Your task to perform on an android device: Open network settings Image 0: 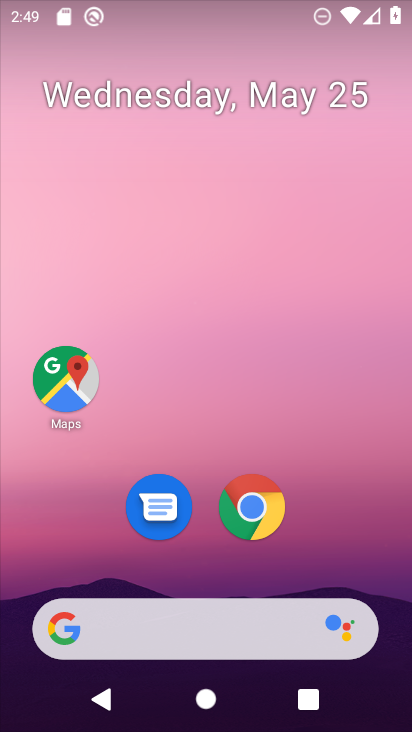
Step 0: drag from (231, 614) to (263, 126)
Your task to perform on an android device: Open network settings Image 1: 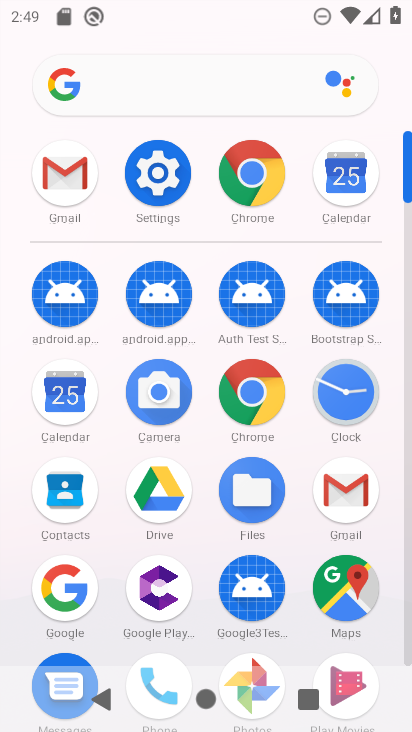
Step 1: click (163, 190)
Your task to perform on an android device: Open network settings Image 2: 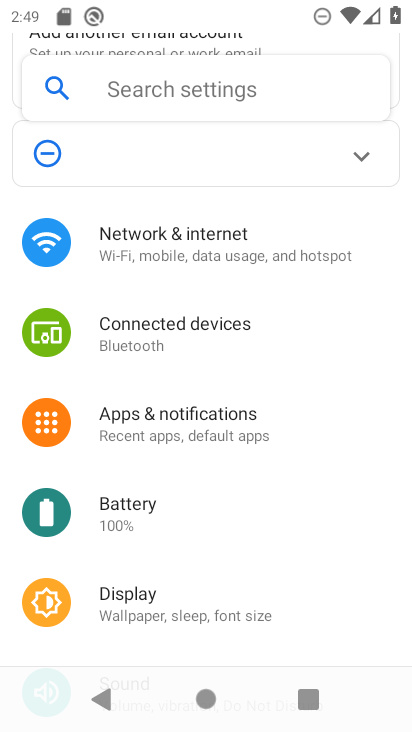
Step 2: click (187, 521)
Your task to perform on an android device: Open network settings Image 3: 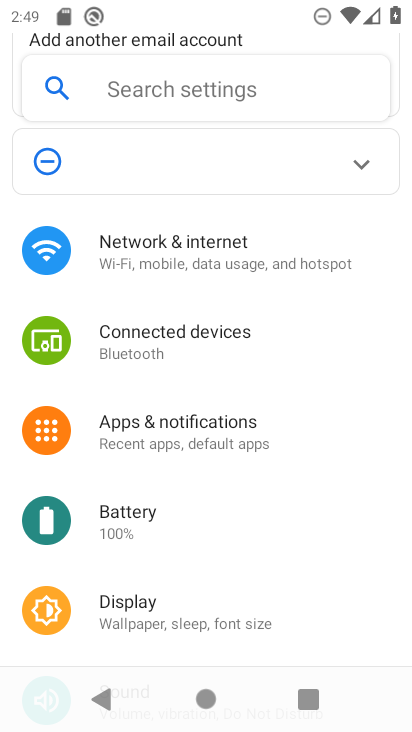
Step 3: click (248, 254)
Your task to perform on an android device: Open network settings Image 4: 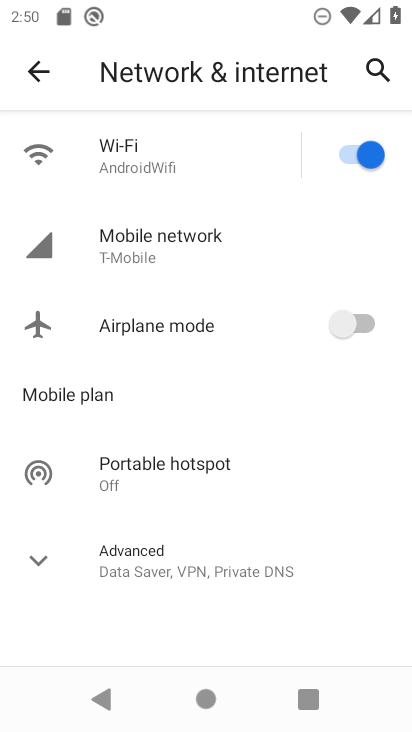
Step 4: click (223, 244)
Your task to perform on an android device: Open network settings Image 5: 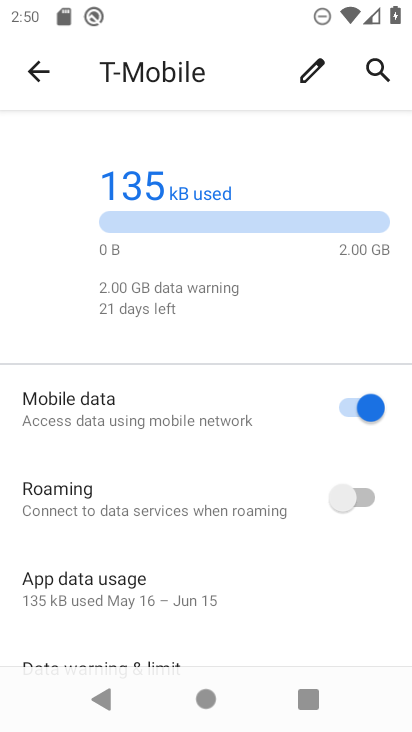
Step 5: task complete